Your task to perform on an android device: Go to CNN.com Image 0: 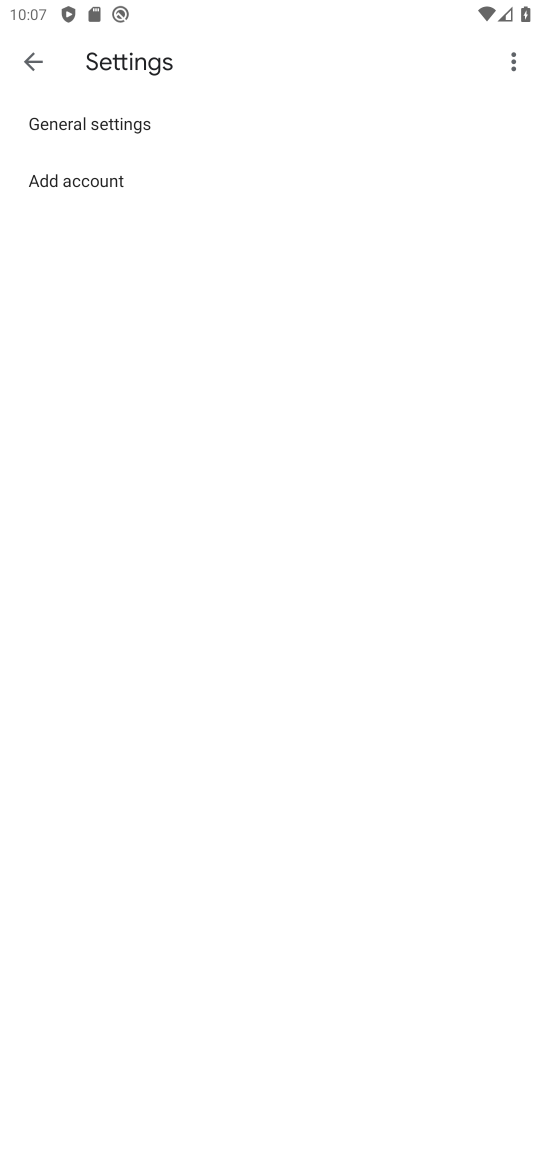
Step 0: press home button
Your task to perform on an android device: Go to CNN.com Image 1: 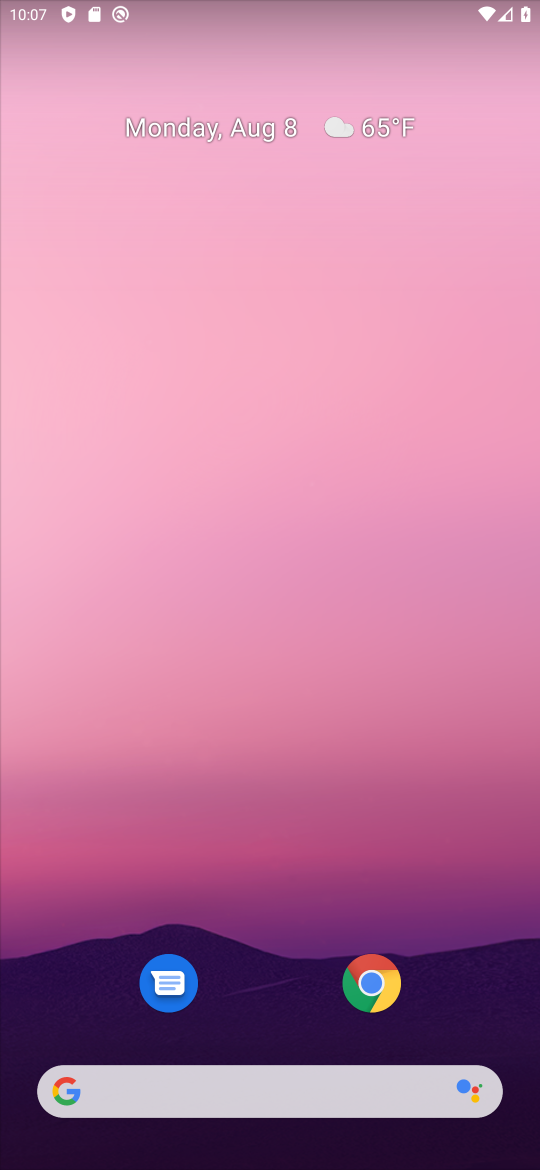
Step 1: click (351, 1004)
Your task to perform on an android device: Go to CNN.com Image 2: 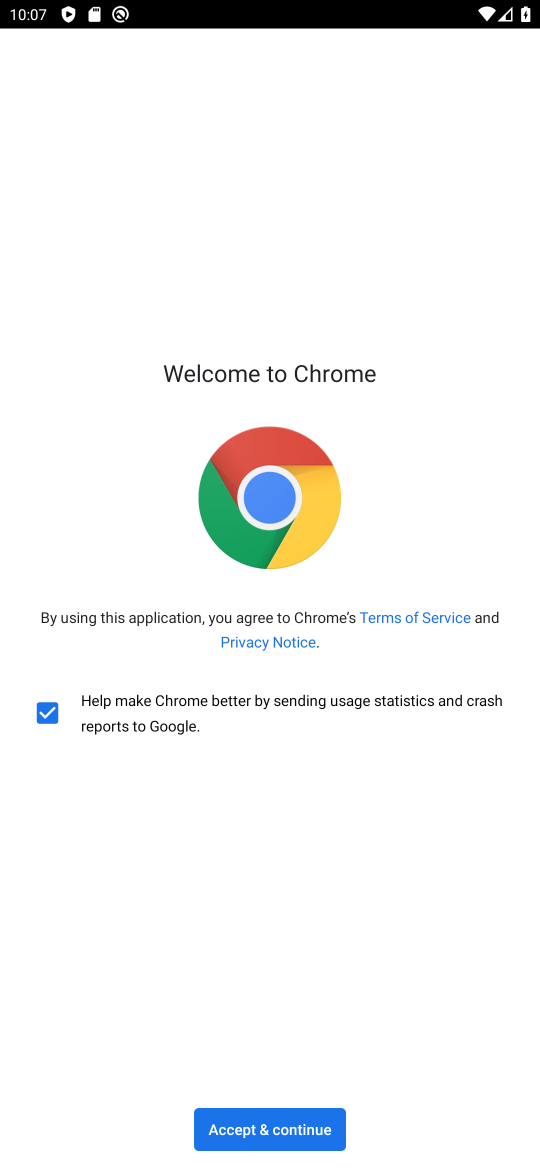
Step 2: click (218, 1129)
Your task to perform on an android device: Go to CNN.com Image 3: 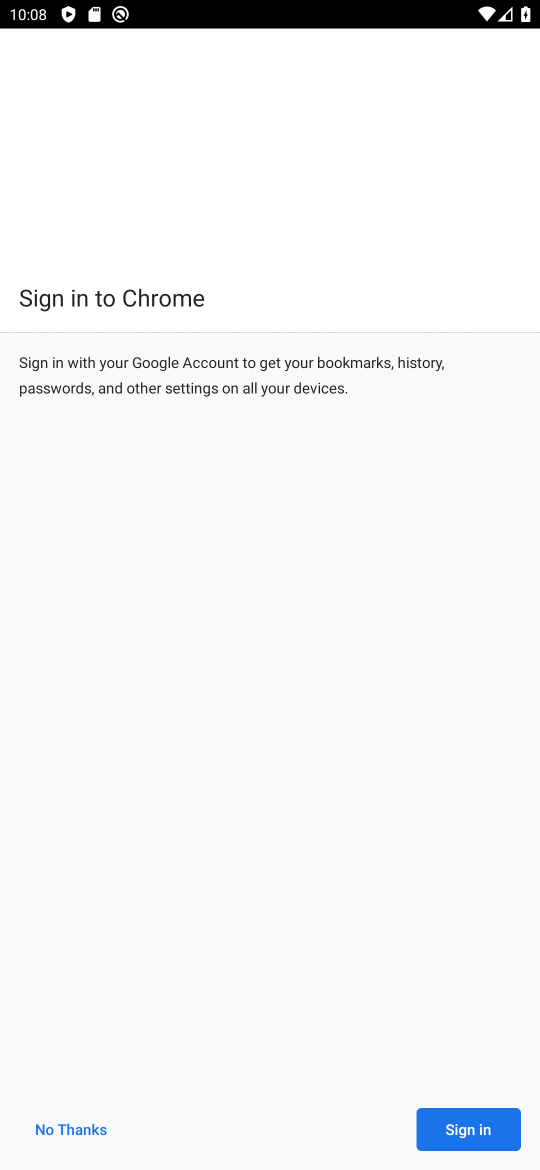
Step 3: click (458, 1121)
Your task to perform on an android device: Go to CNN.com Image 4: 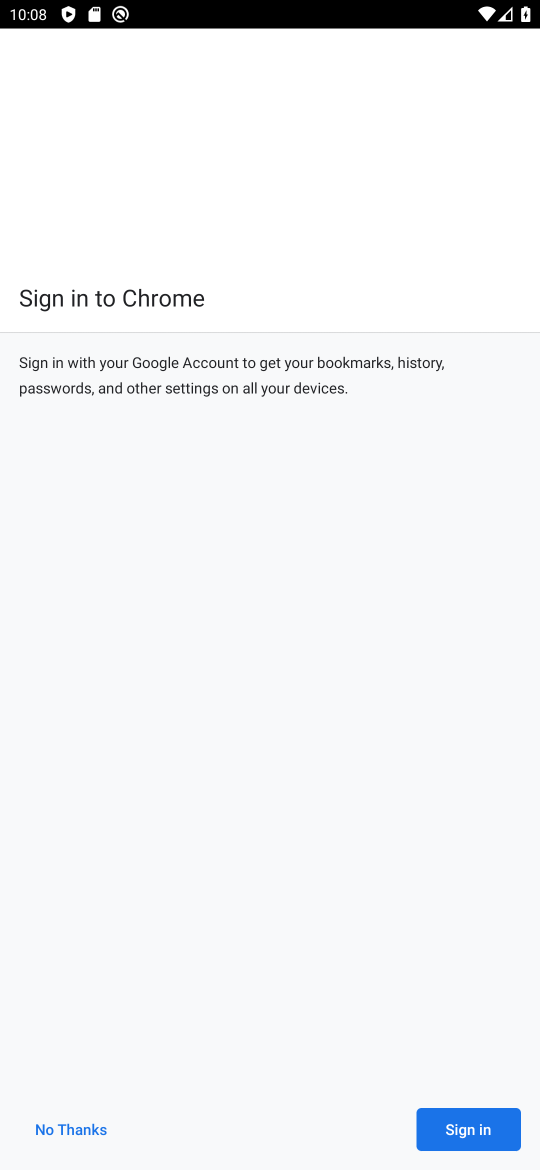
Step 4: click (458, 1128)
Your task to perform on an android device: Go to CNN.com Image 5: 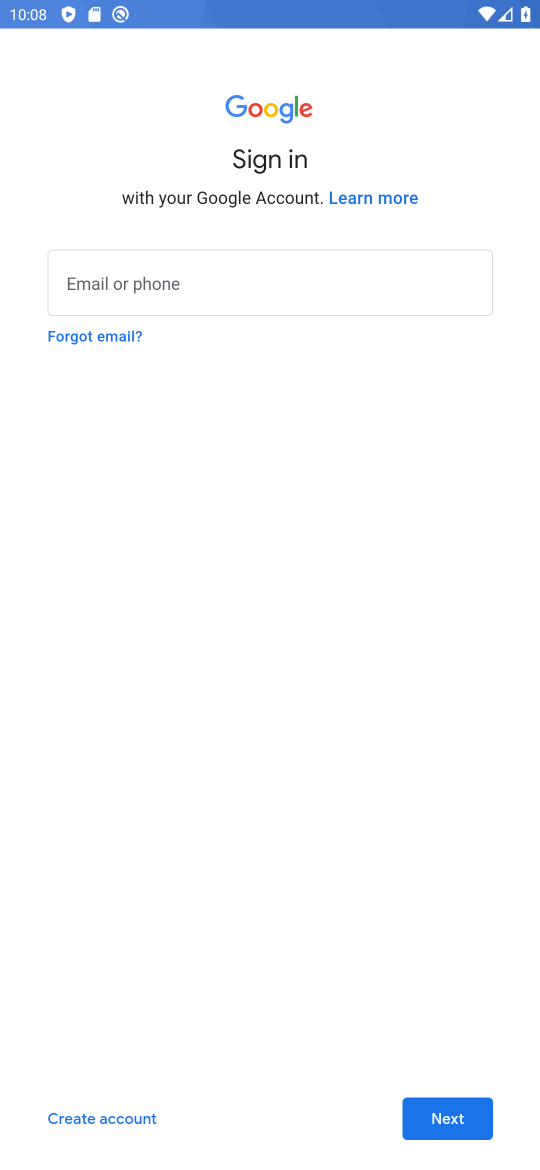
Step 5: task complete